Your task to perform on an android device: Open calendar and show me the second week of next month Image 0: 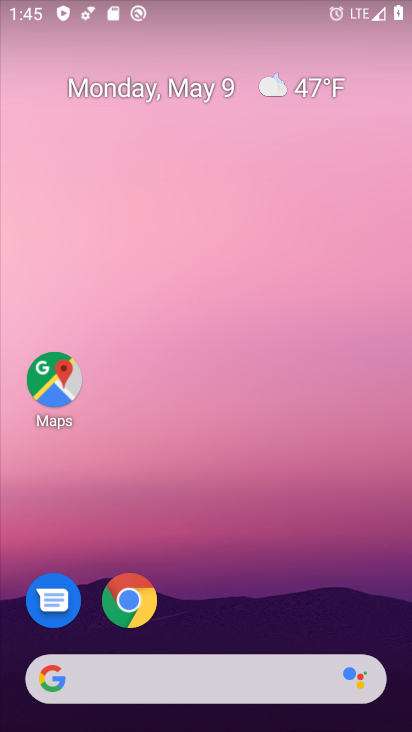
Step 0: drag from (174, 661) to (187, 2)
Your task to perform on an android device: Open calendar and show me the second week of next month Image 1: 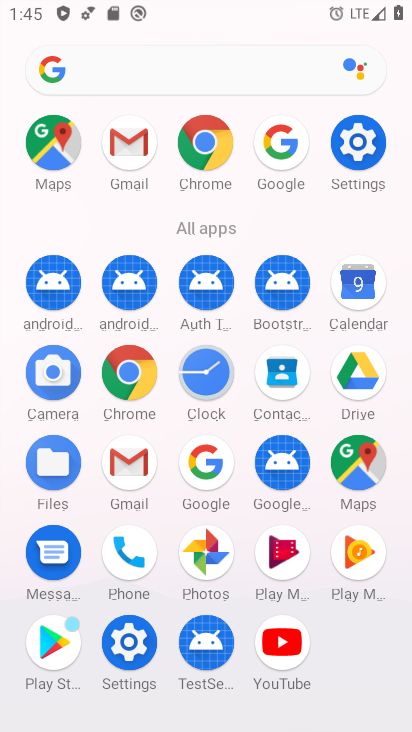
Step 1: click (360, 294)
Your task to perform on an android device: Open calendar and show me the second week of next month Image 2: 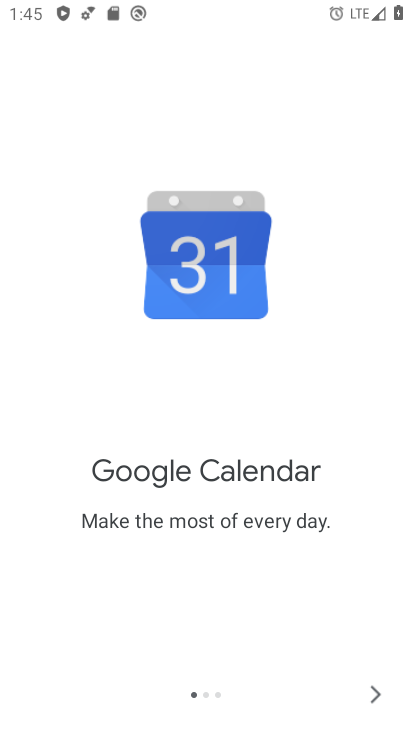
Step 2: click (379, 684)
Your task to perform on an android device: Open calendar and show me the second week of next month Image 3: 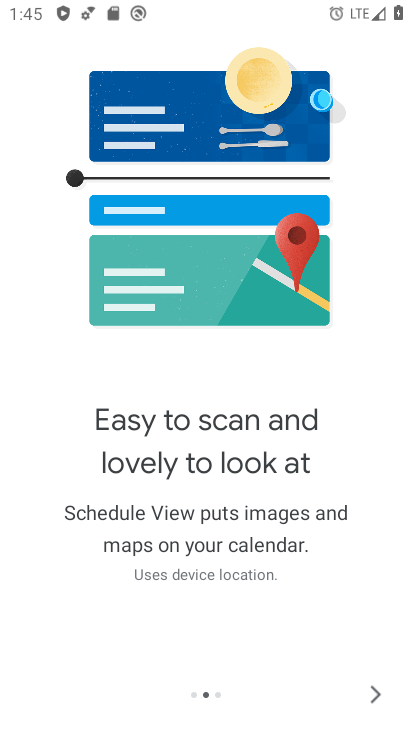
Step 3: click (379, 684)
Your task to perform on an android device: Open calendar and show me the second week of next month Image 4: 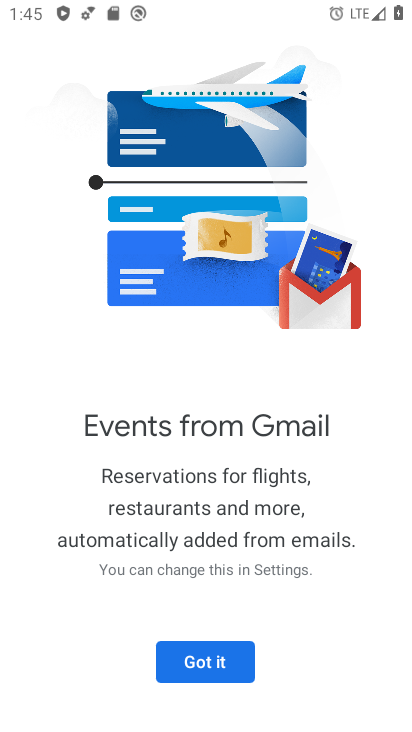
Step 4: click (206, 657)
Your task to perform on an android device: Open calendar and show me the second week of next month Image 5: 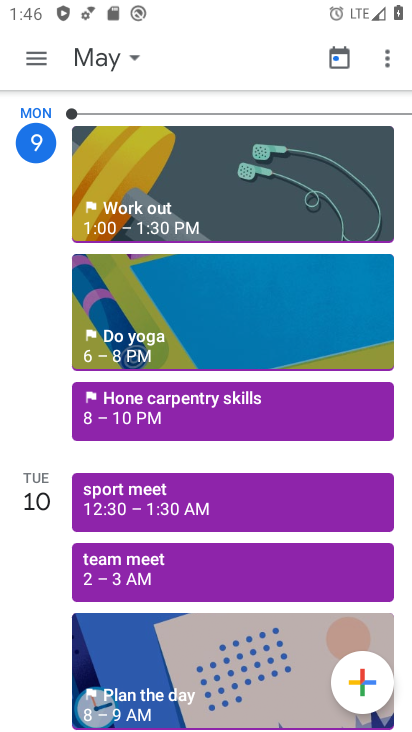
Step 5: click (27, 60)
Your task to perform on an android device: Open calendar and show me the second week of next month Image 6: 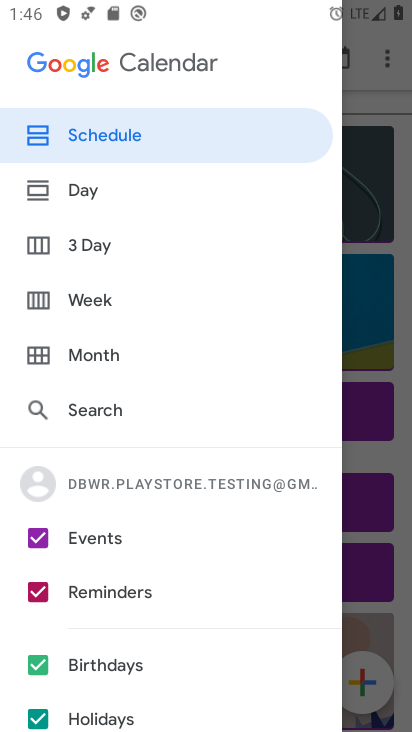
Step 6: click (90, 359)
Your task to perform on an android device: Open calendar and show me the second week of next month Image 7: 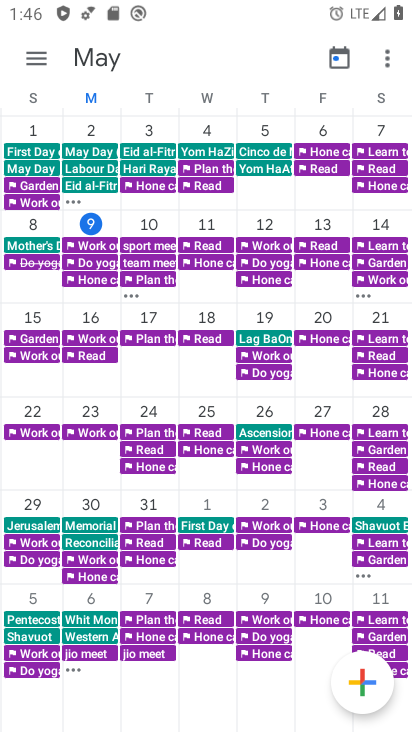
Step 7: task complete